Your task to perform on an android device: change the clock display to show seconds Image 0: 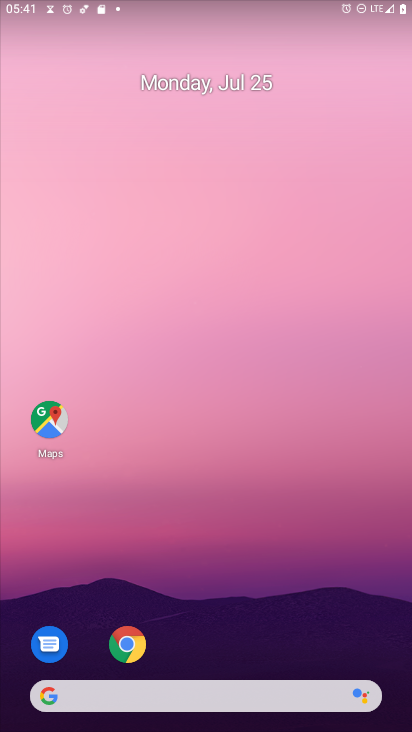
Step 0: press home button
Your task to perform on an android device: change the clock display to show seconds Image 1: 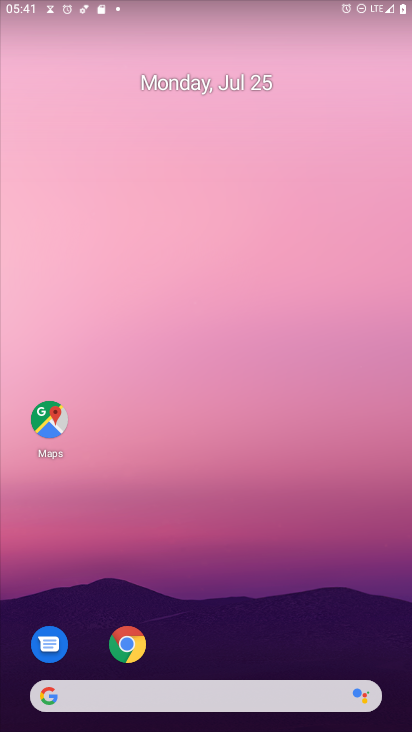
Step 1: drag from (232, 647) to (209, 6)
Your task to perform on an android device: change the clock display to show seconds Image 2: 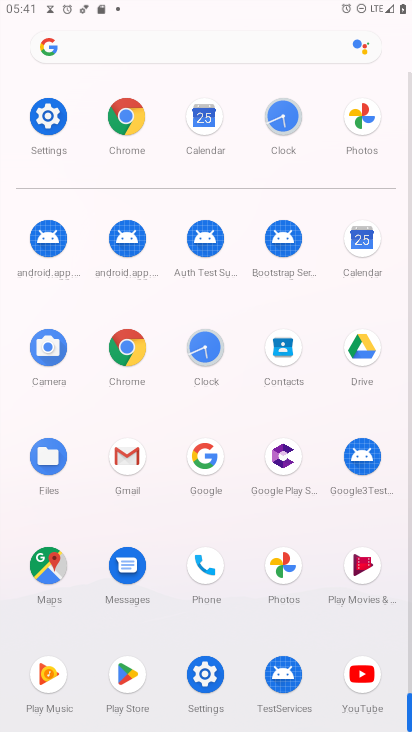
Step 2: click (219, 350)
Your task to perform on an android device: change the clock display to show seconds Image 3: 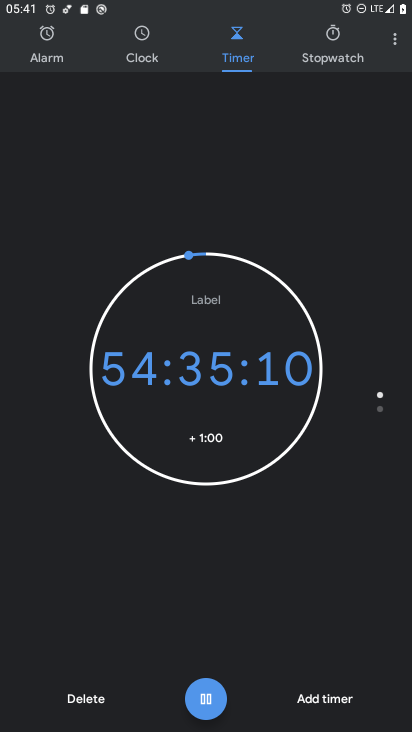
Step 3: click (395, 36)
Your task to perform on an android device: change the clock display to show seconds Image 4: 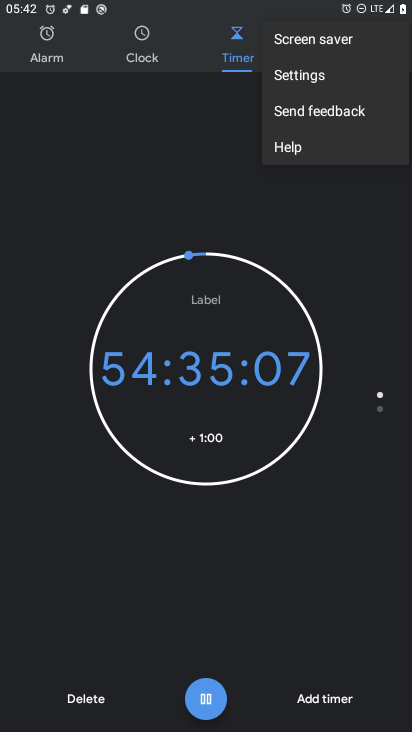
Step 4: click (301, 81)
Your task to perform on an android device: change the clock display to show seconds Image 5: 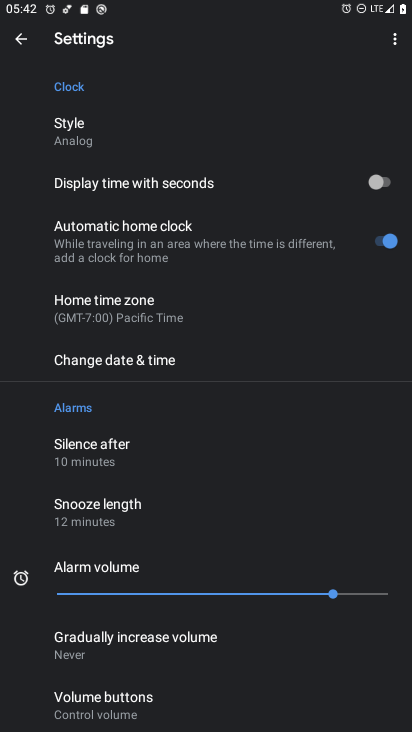
Step 5: click (366, 185)
Your task to perform on an android device: change the clock display to show seconds Image 6: 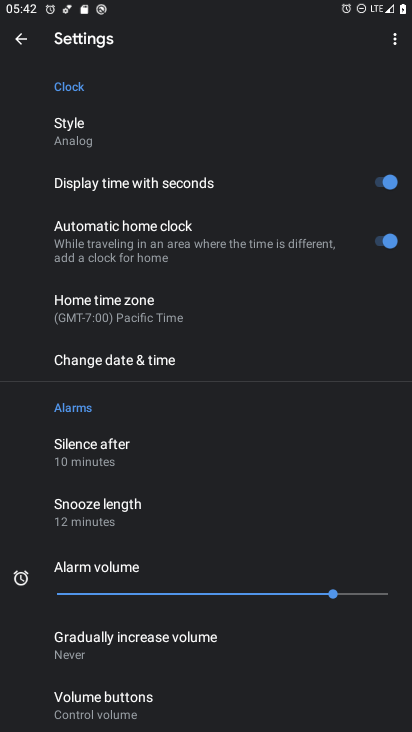
Step 6: task complete